Your task to perform on an android device: Open sound settings Image 0: 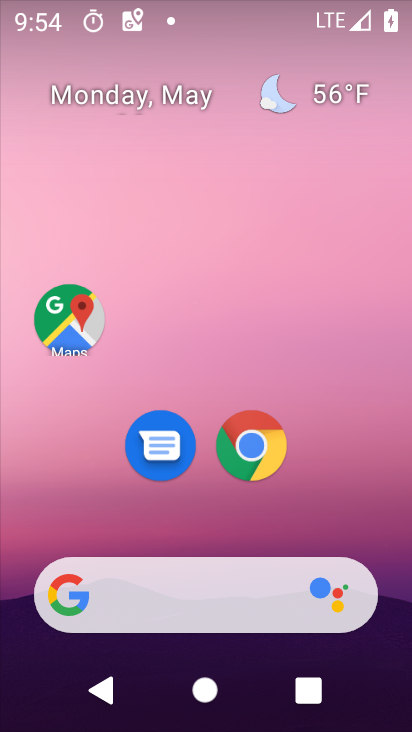
Step 0: drag from (111, 513) to (210, 0)
Your task to perform on an android device: Open sound settings Image 1: 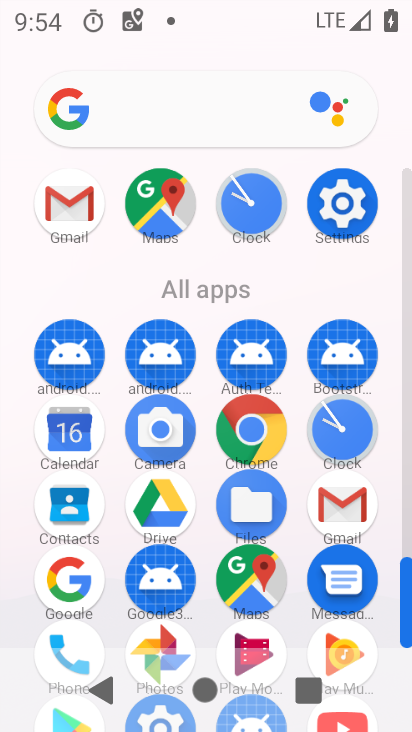
Step 1: drag from (162, 574) to (231, 304)
Your task to perform on an android device: Open sound settings Image 2: 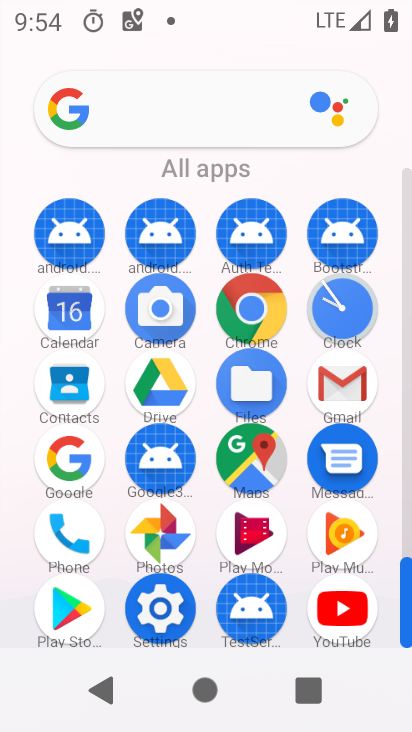
Step 2: click (163, 623)
Your task to perform on an android device: Open sound settings Image 3: 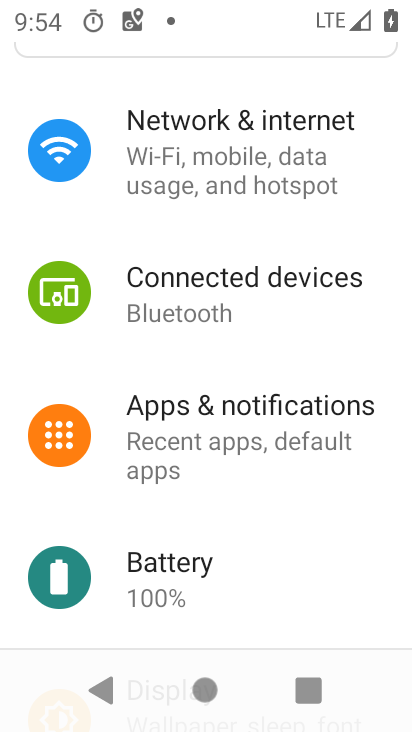
Step 3: drag from (182, 608) to (274, 218)
Your task to perform on an android device: Open sound settings Image 4: 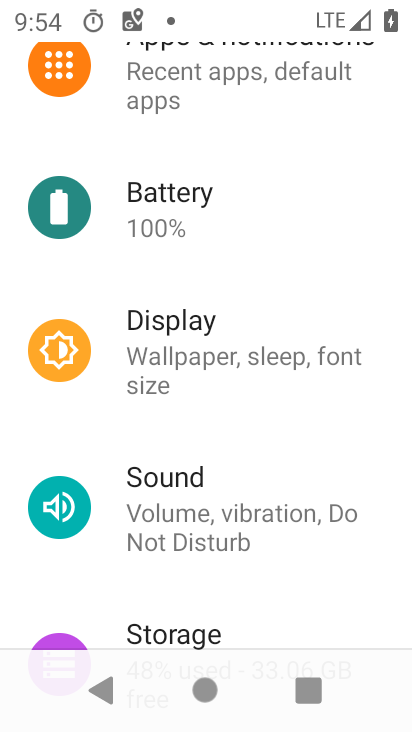
Step 4: click (204, 526)
Your task to perform on an android device: Open sound settings Image 5: 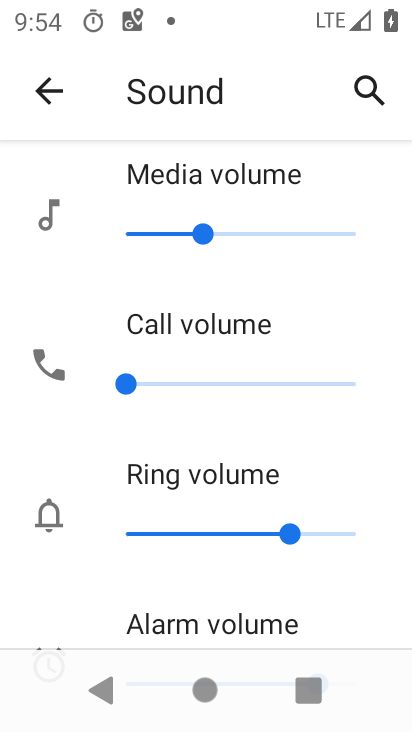
Step 5: task complete